Your task to perform on an android device: turn off airplane mode Image 0: 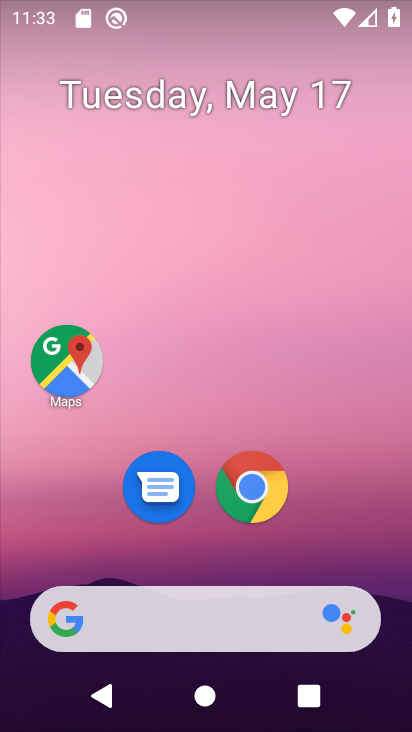
Step 0: click (382, 549)
Your task to perform on an android device: turn off airplane mode Image 1: 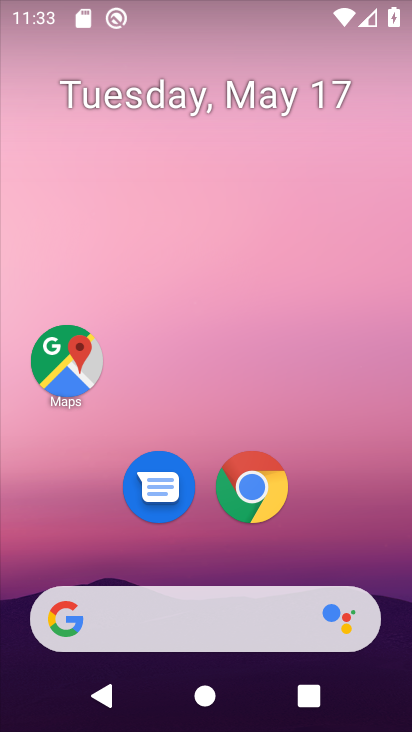
Step 1: drag from (363, 560) to (291, 151)
Your task to perform on an android device: turn off airplane mode Image 2: 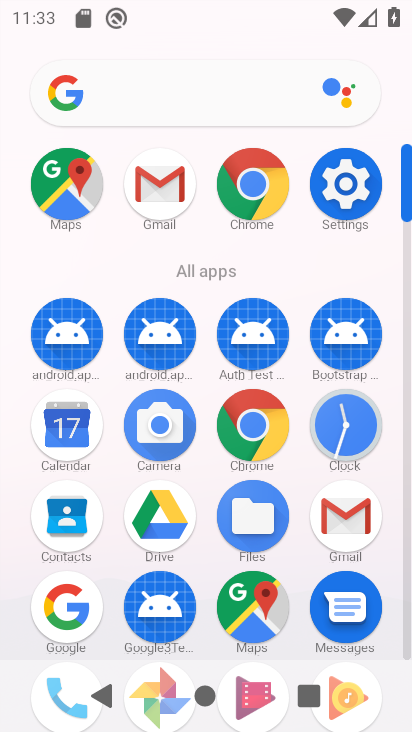
Step 2: click (361, 180)
Your task to perform on an android device: turn off airplane mode Image 3: 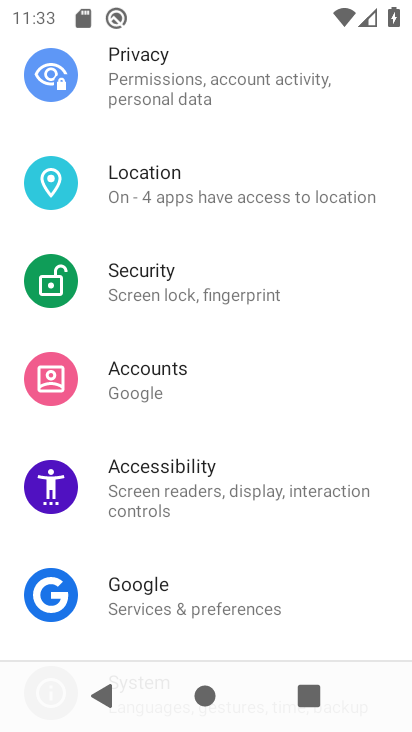
Step 3: drag from (261, 131) to (301, 723)
Your task to perform on an android device: turn off airplane mode Image 4: 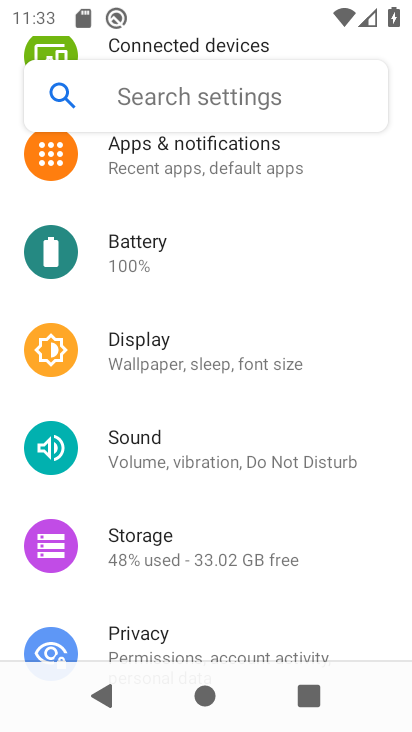
Step 4: drag from (244, 202) to (256, 549)
Your task to perform on an android device: turn off airplane mode Image 5: 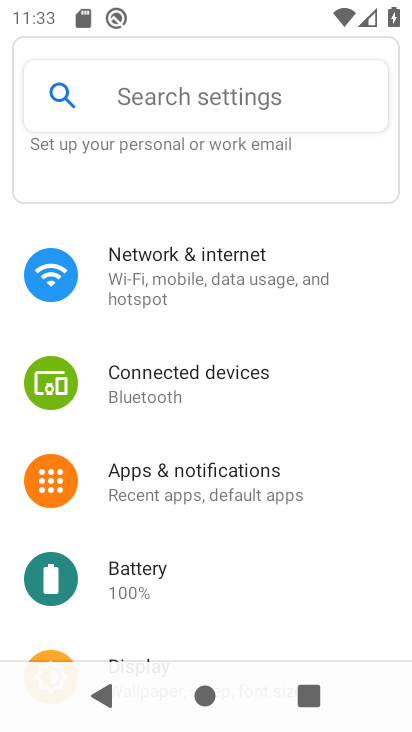
Step 5: click (234, 285)
Your task to perform on an android device: turn off airplane mode Image 6: 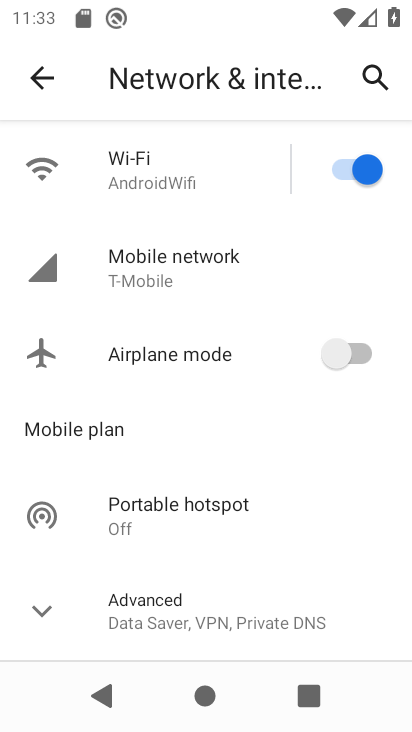
Step 6: task complete